Your task to perform on an android device: toggle translation in the chrome app Image 0: 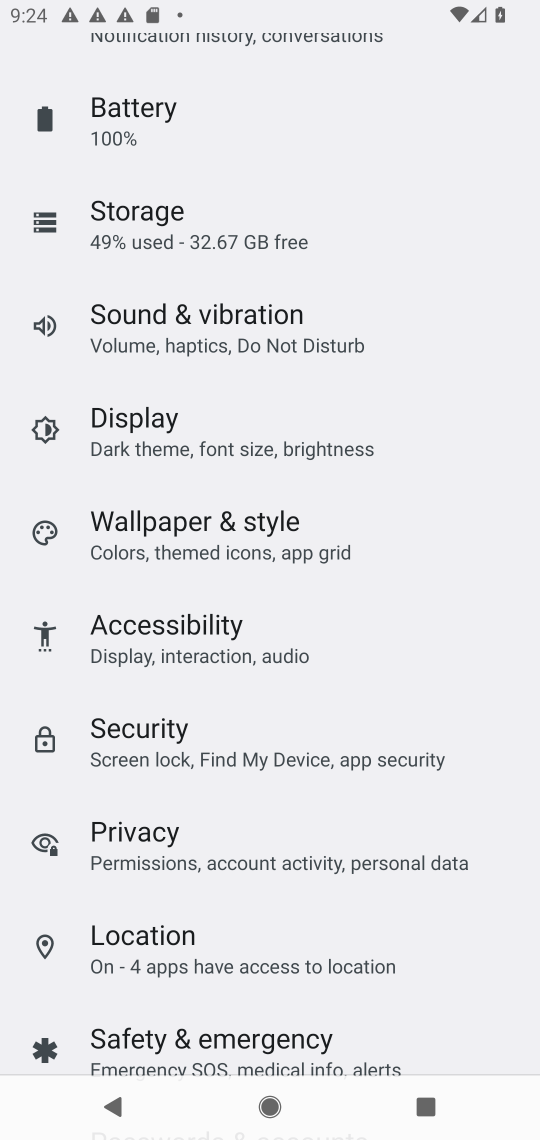
Step 0: press home button
Your task to perform on an android device: toggle translation in the chrome app Image 1: 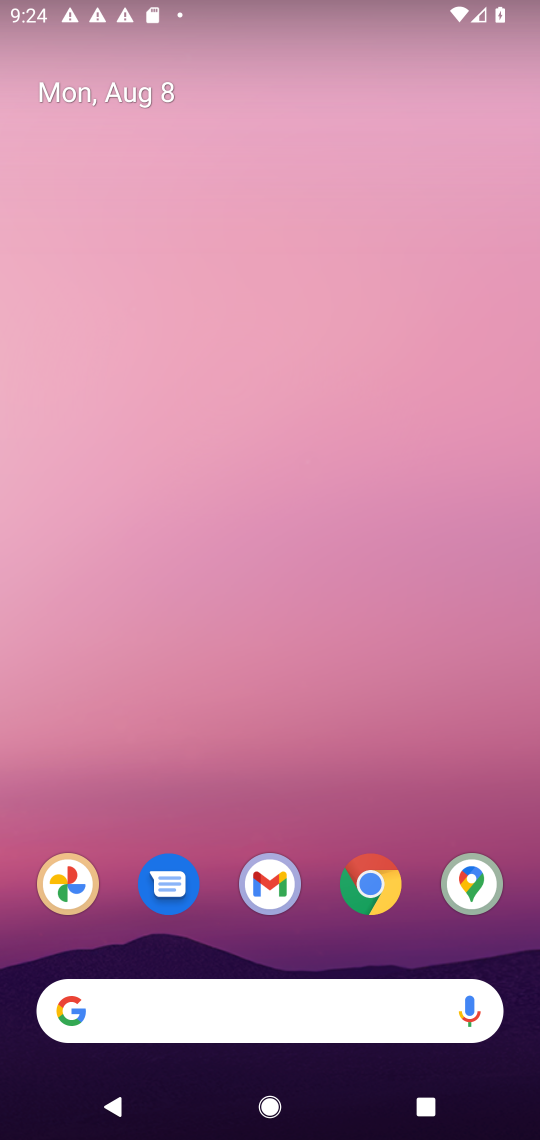
Step 1: click (370, 874)
Your task to perform on an android device: toggle translation in the chrome app Image 2: 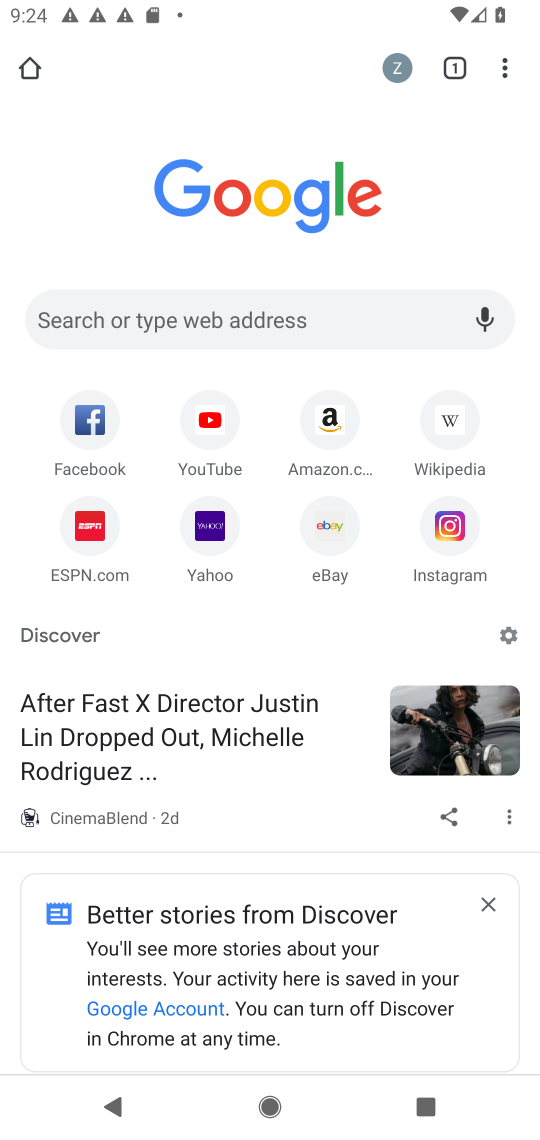
Step 2: click (509, 62)
Your task to perform on an android device: toggle translation in the chrome app Image 3: 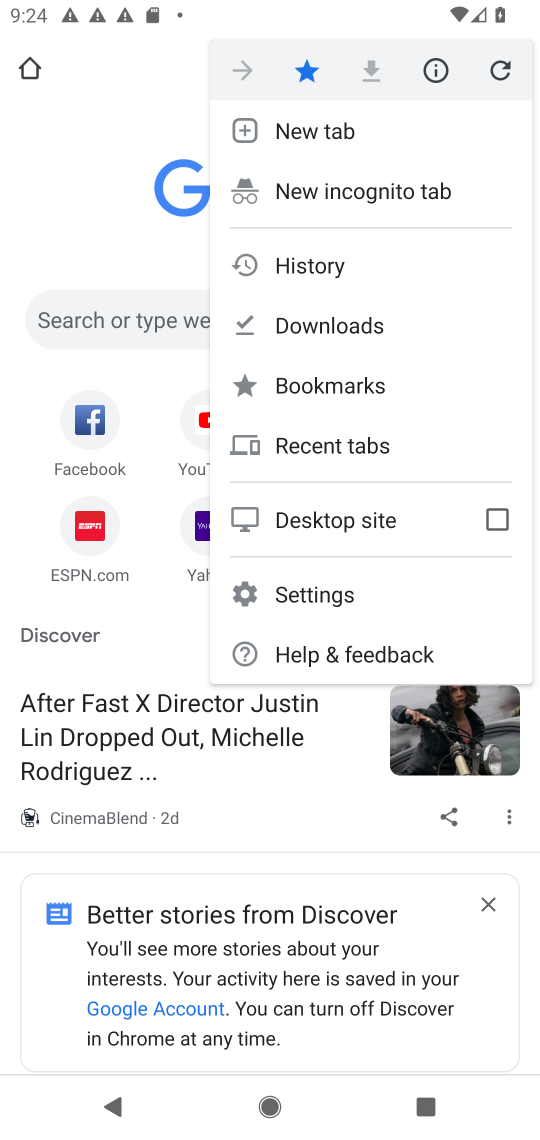
Step 3: click (326, 596)
Your task to perform on an android device: toggle translation in the chrome app Image 4: 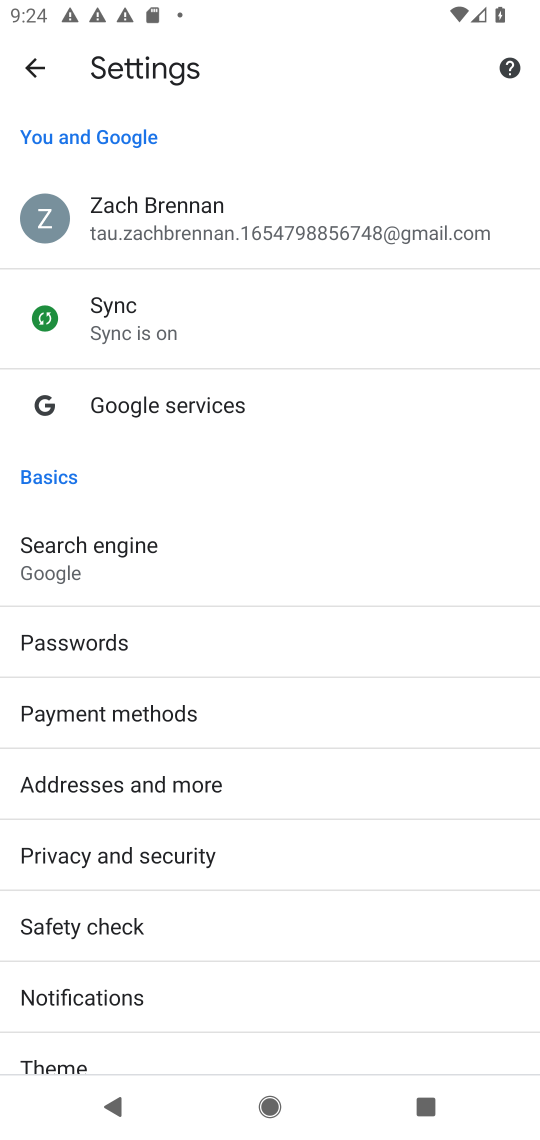
Step 4: drag from (274, 958) to (290, 476)
Your task to perform on an android device: toggle translation in the chrome app Image 5: 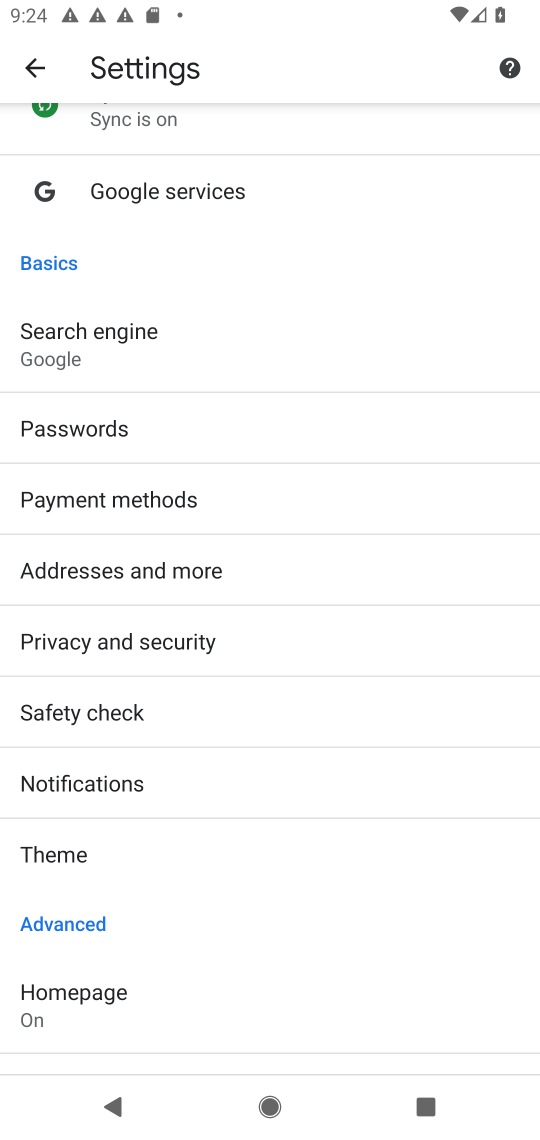
Step 5: drag from (286, 865) to (286, 441)
Your task to perform on an android device: toggle translation in the chrome app Image 6: 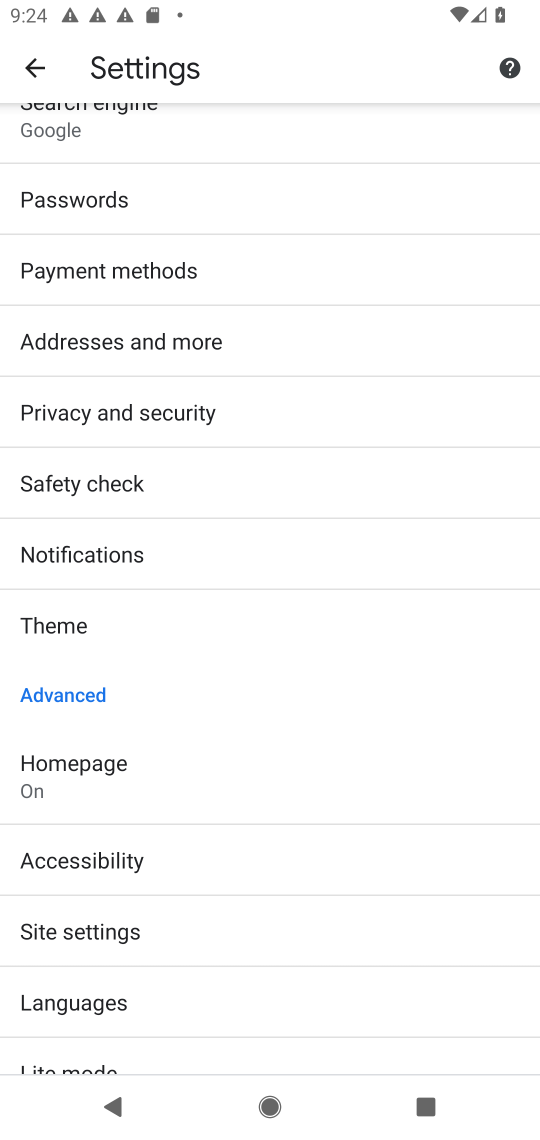
Step 6: click (74, 999)
Your task to perform on an android device: toggle translation in the chrome app Image 7: 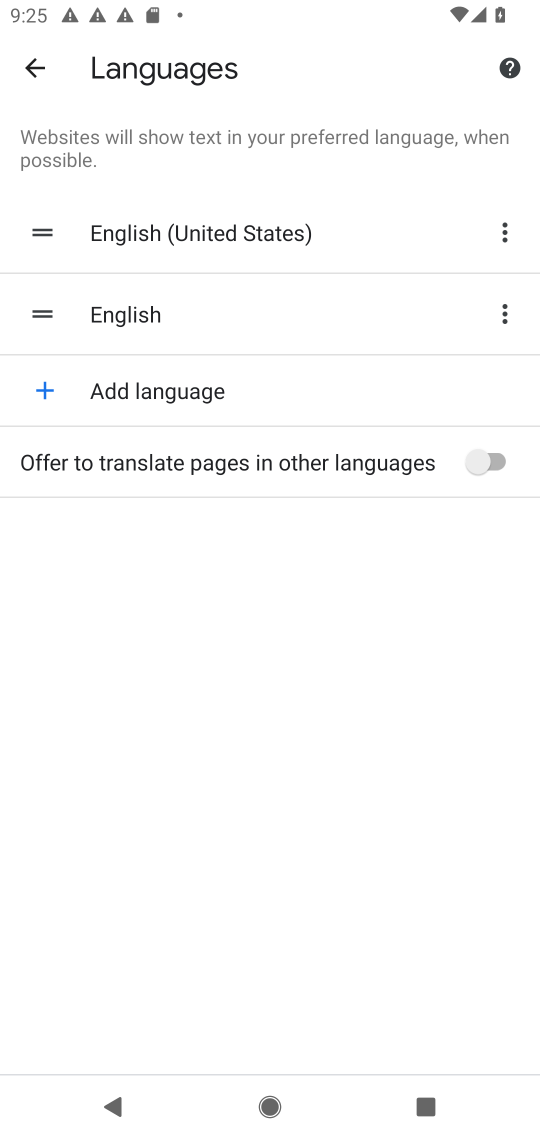
Step 7: click (489, 460)
Your task to perform on an android device: toggle translation in the chrome app Image 8: 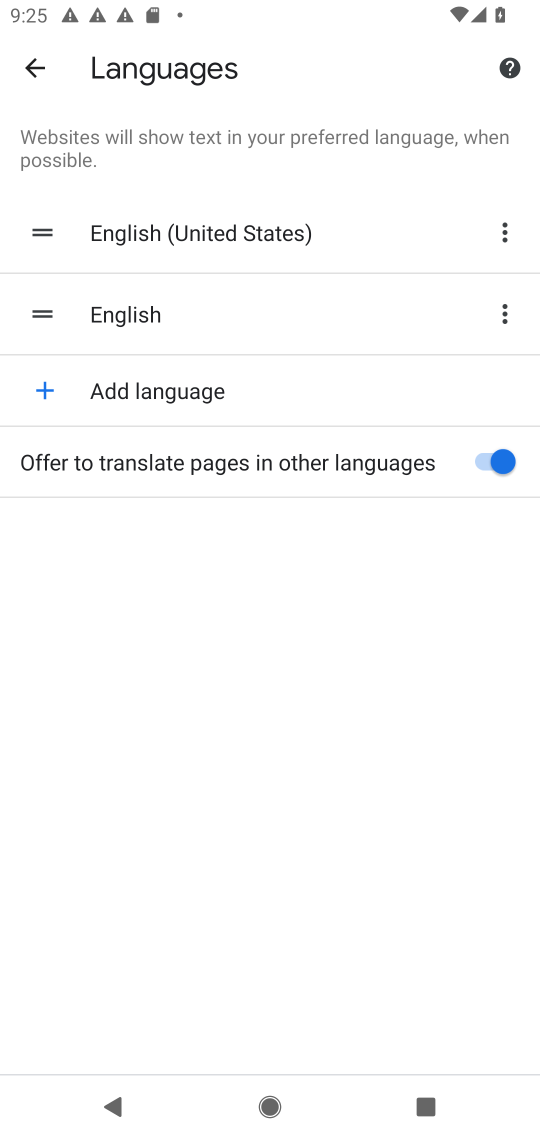
Step 8: task complete